Your task to perform on an android device: Open the phone app and click the voicemail tab. Image 0: 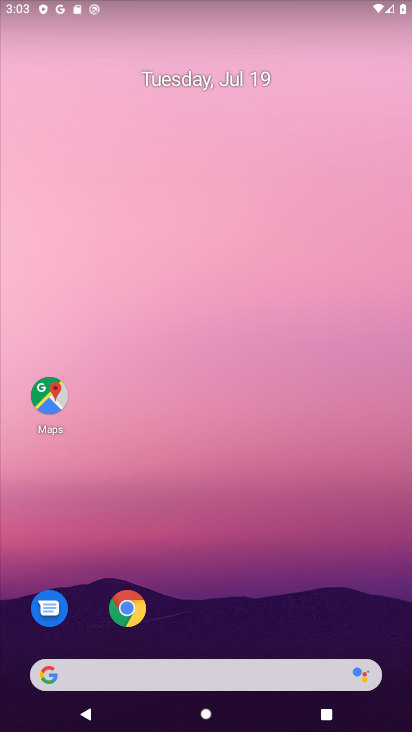
Step 0: drag from (232, 607) to (206, 259)
Your task to perform on an android device: Open the phone app and click the voicemail tab. Image 1: 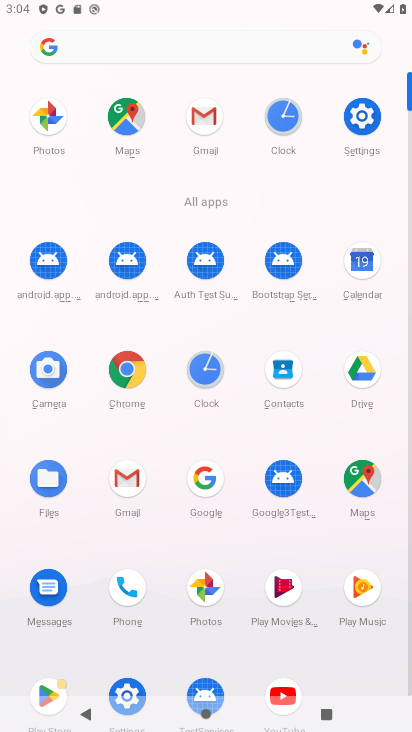
Step 1: click (131, 585)
Your task to perform on an android device: Open the phone app and click the voicemail tab. Image 2: 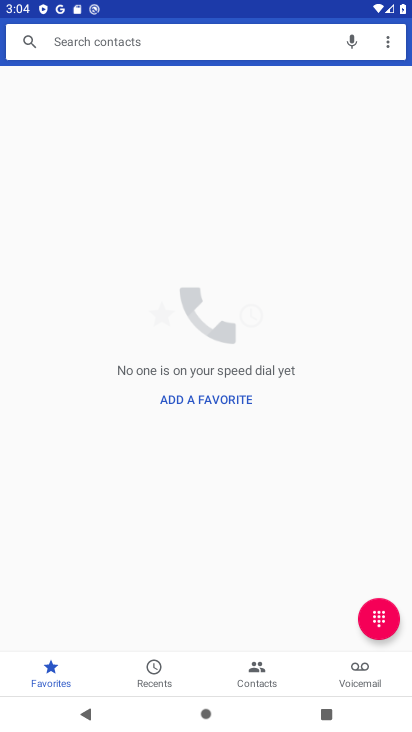
Step 2: click (339, 672)
Your task to perform on an android device: Open the phone app and click the voicemail tab. Image 3: 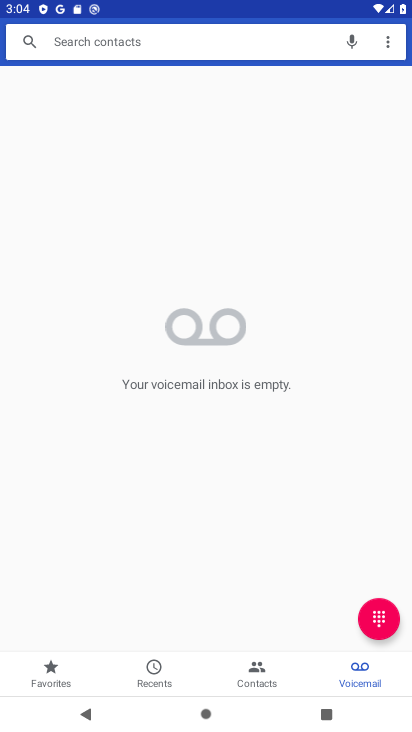
Step 3: task complete